Your task to perform on an android device: refresh tabs in the chrome app Image 0: 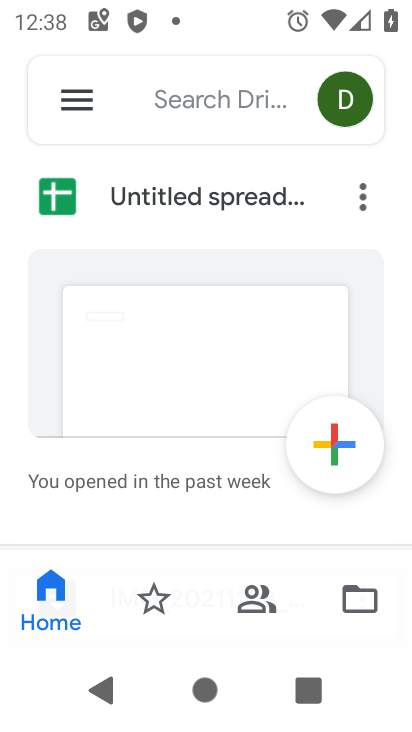
Step 0: press home button
Your task to perform on an android device: refresh tabs in the chrome app Image 1: 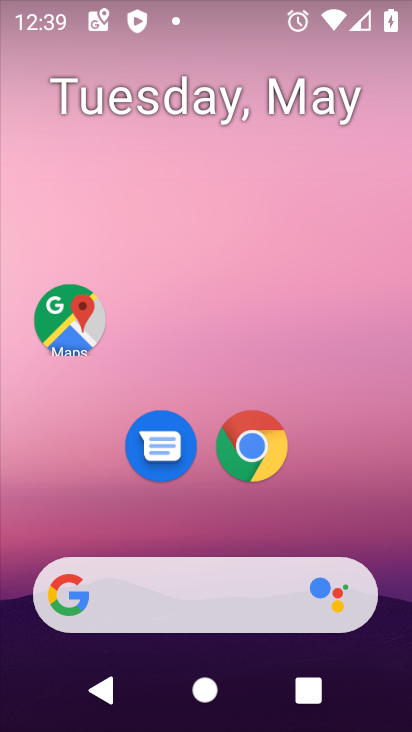
Step 1: drag from (339, 514) to (362, 194)
Your task to perform on an android device: refresh tabs in the chrome app Image 2: 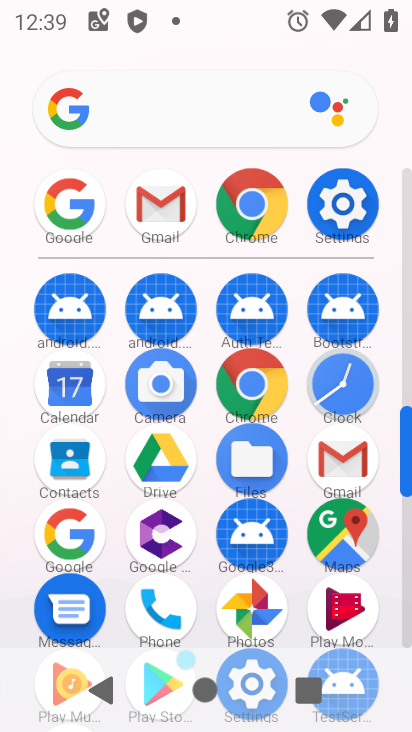
Step 2: click (253, 374)
Your task to perform on an android device: refresh tabs in the chrome app Image 3: 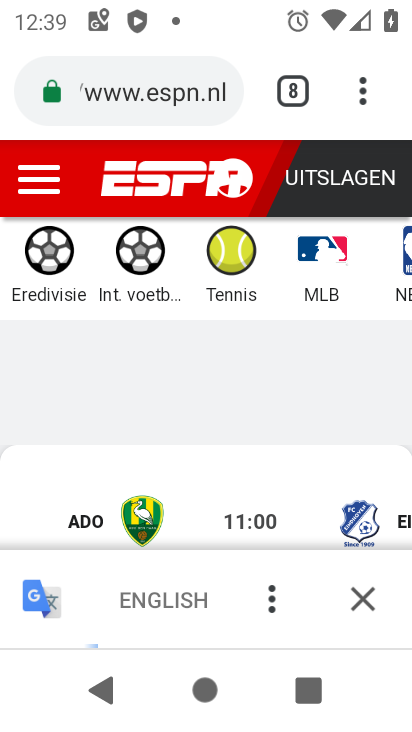
Step 3: click (379, 93)
Your task to perform on an android device: refresh tabs in the chrome app Image 4: 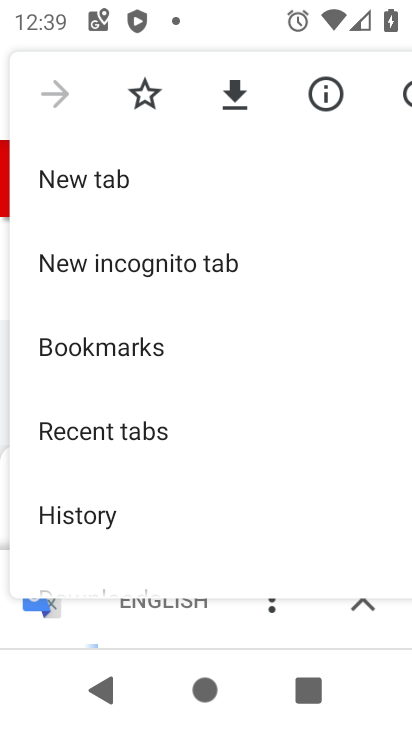
Step 4: drag from (144, 475) to (144, 552)
Your task to perform on an android device: refresh tabs in the chrome app Image 5: 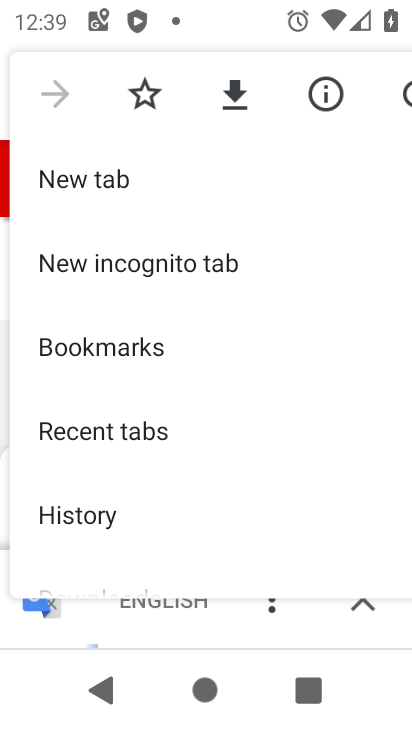
Step 5: click (401, 92)
Your task to perform on an android device: refresh tabs in the chrome app Image 6: 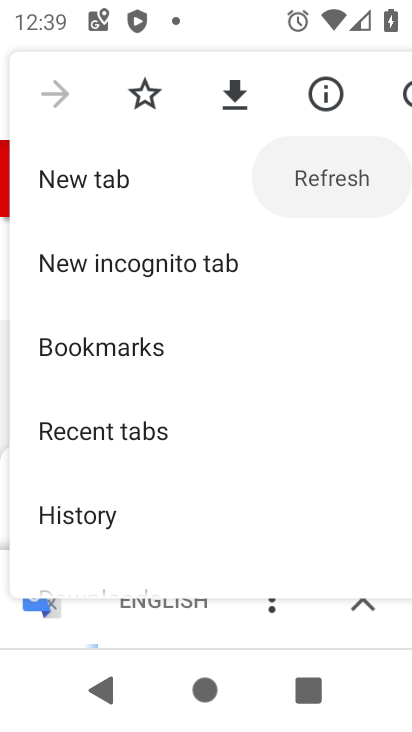
Step 6: click (401, 92)
Your task to perform on an android device: refresh tabs in the chrome app Image 7: 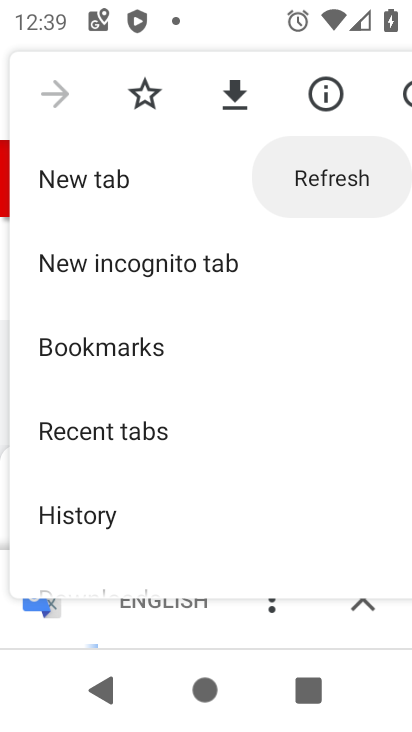
Step 7: task complete